Your task to perform on an android device: Play the last video I watched on Youtube Image 0: 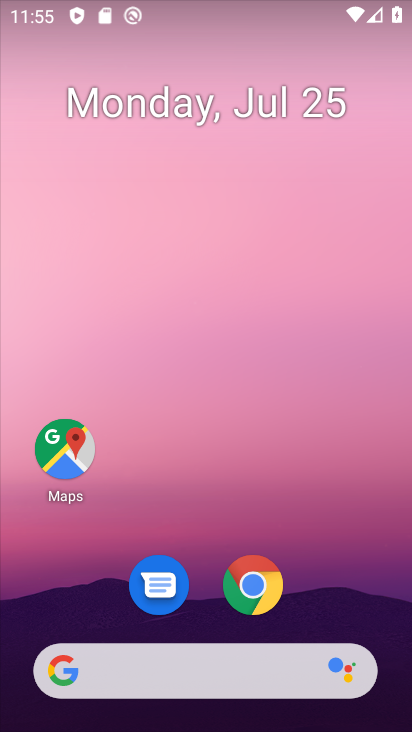
Step 0: drag from (332, 579) to (317, 2)
Your task to perform on an android device: Play the last video I watched on Youtube Image 1: 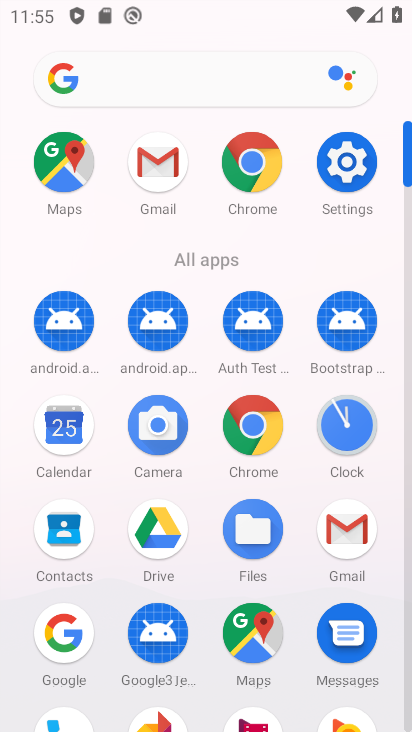
Step 1: drag from (195, 479) to (224, 57)
Your task to perform on an android device: Play the last video I watched on Youtube Image 2: 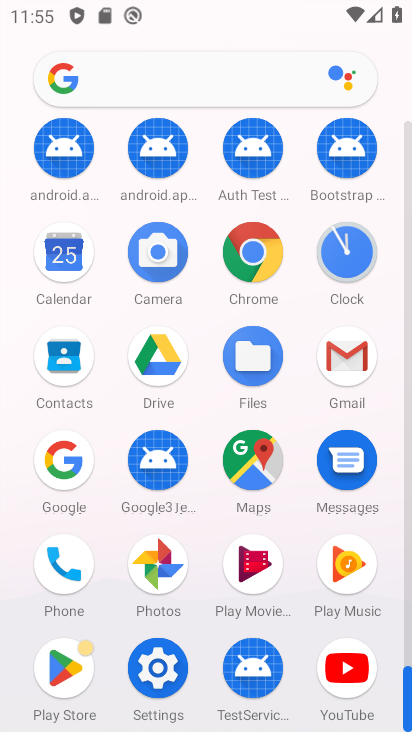
Step 2: click (344, 655)
Your task to perform on an android device: Play the last video I watched on Youtube Image 3: 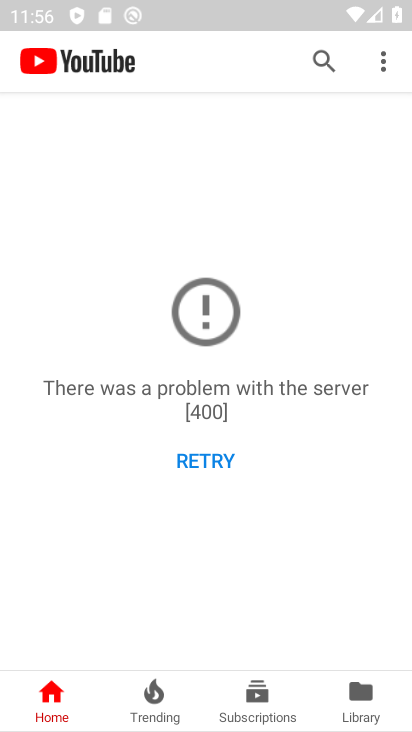
Step 3: click (359, 688)
Your task to perform on an android device: Play the last video I watched on Youtube Image 4: 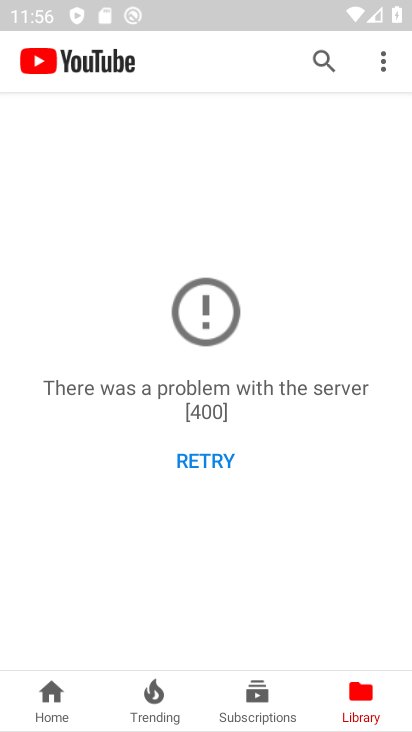
Step 4: task complete